Your task to perform on an android device: Open maps Image 0: 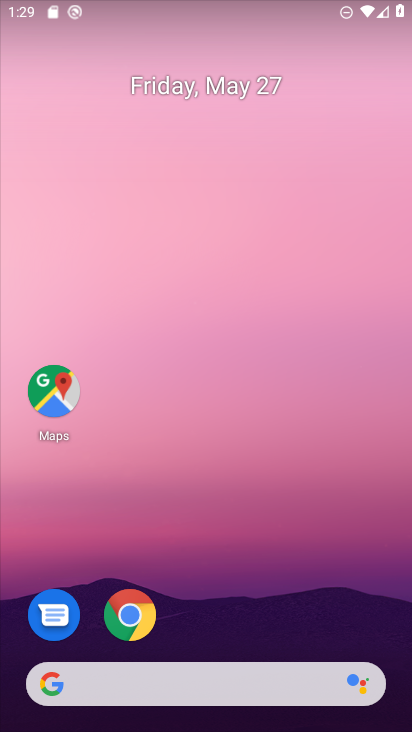
Step 0: drag from (235, 623) to (293, 190)
Your task to perform on an android device: Open maps Image 1: 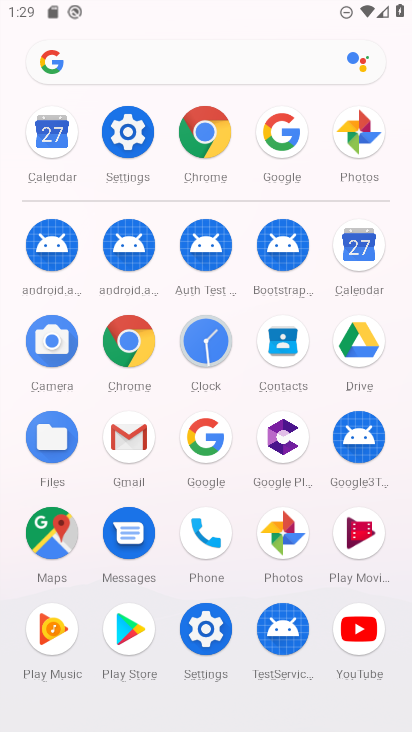
Step 1: click (37, 554)
Your task to perform on an android device: Open maps Image 2: 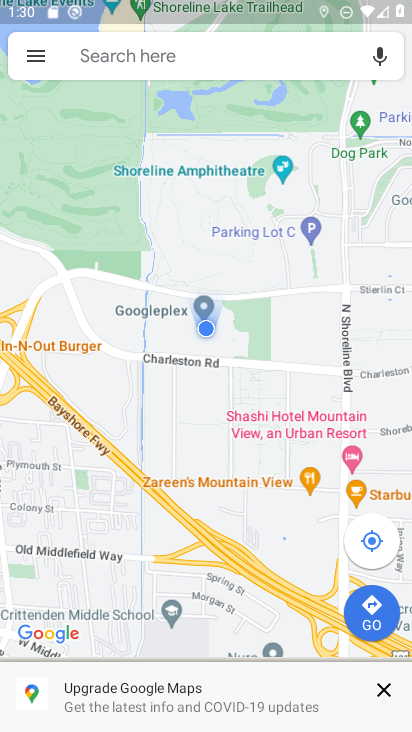
Step 2: task complete